Your task to perform on an android device: delete the emails in spam in the gmail app Image 0: 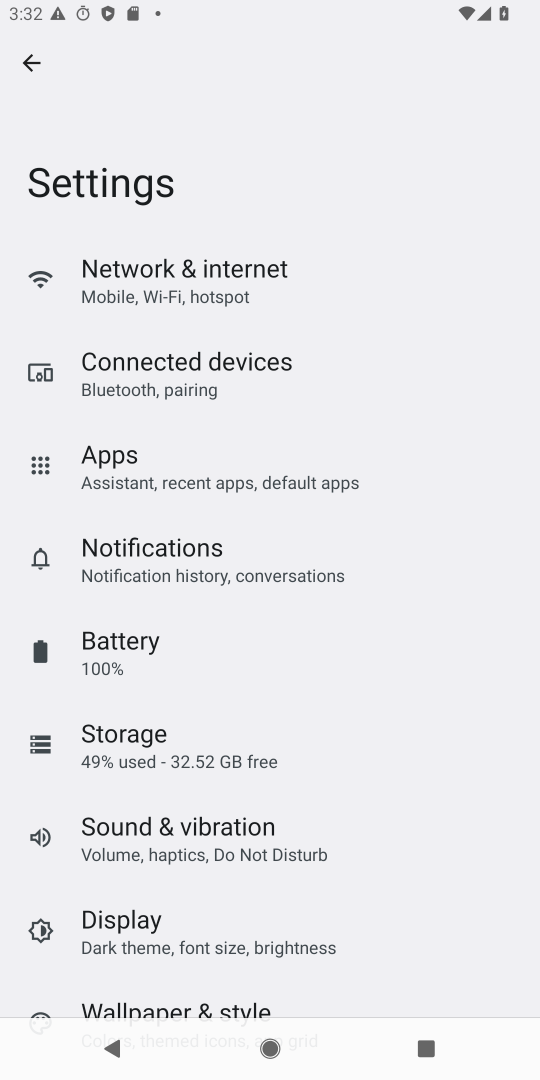
Step 0: press home button
Your task to perform on an android device: delete the emails in spam in the gmail app Image 1: 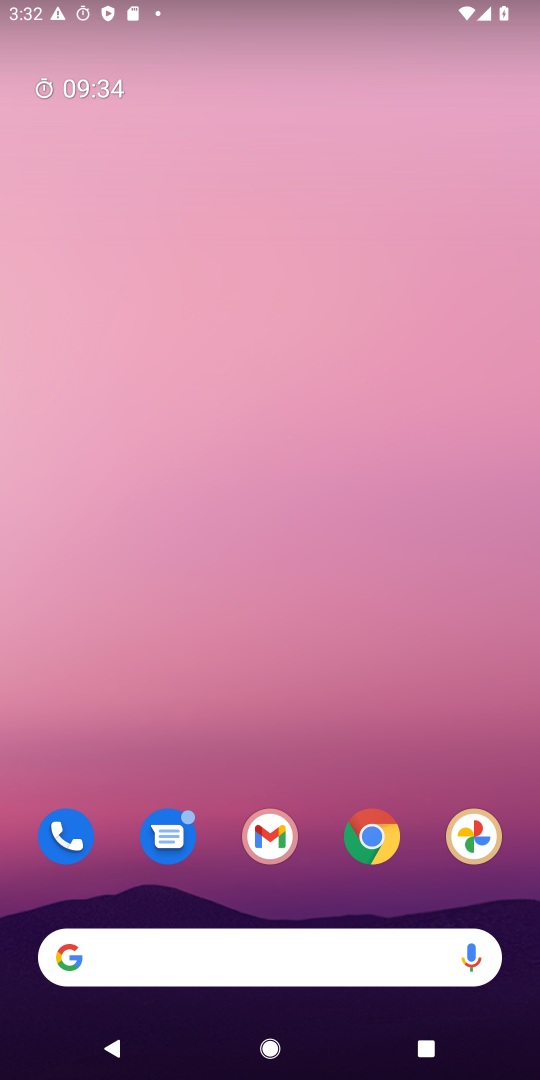
Step 1: click (296, 848)
Your task to perform on an android device: delete the emails in spam in the gmail app Image 2: 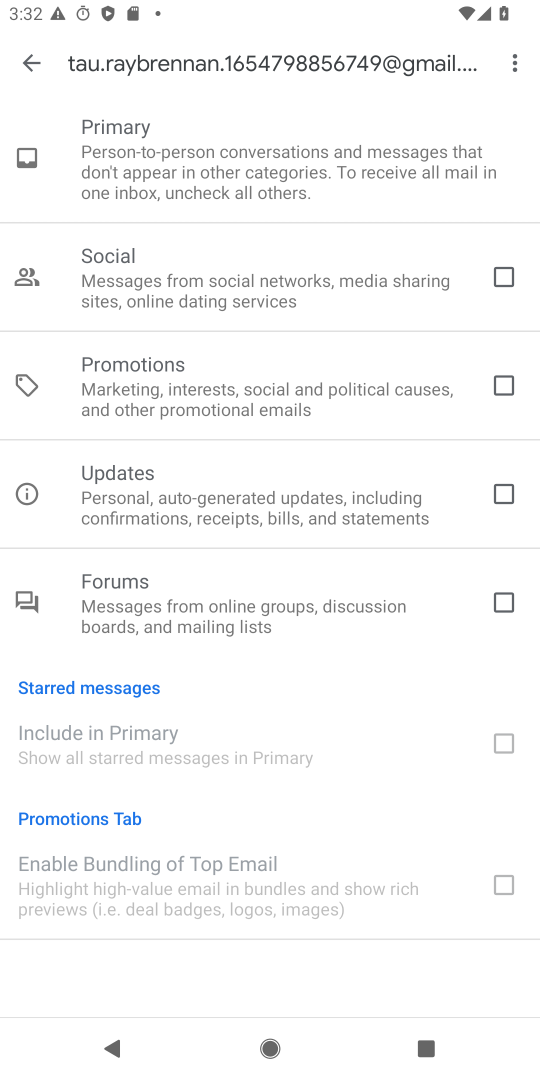
Step 2: click (39, 54)
Your task to perform on an android device: delete the emails in spam in the gmail app Image 3: 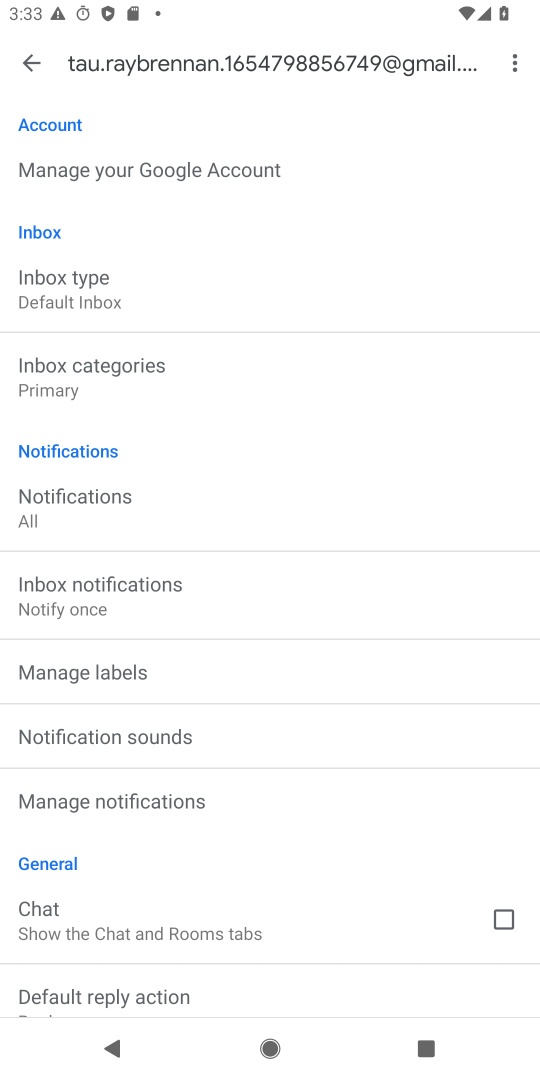
Step 3: click (51, 79)
Your task to perform on an android device: delete the emails in spam in the gmail app Image 4: 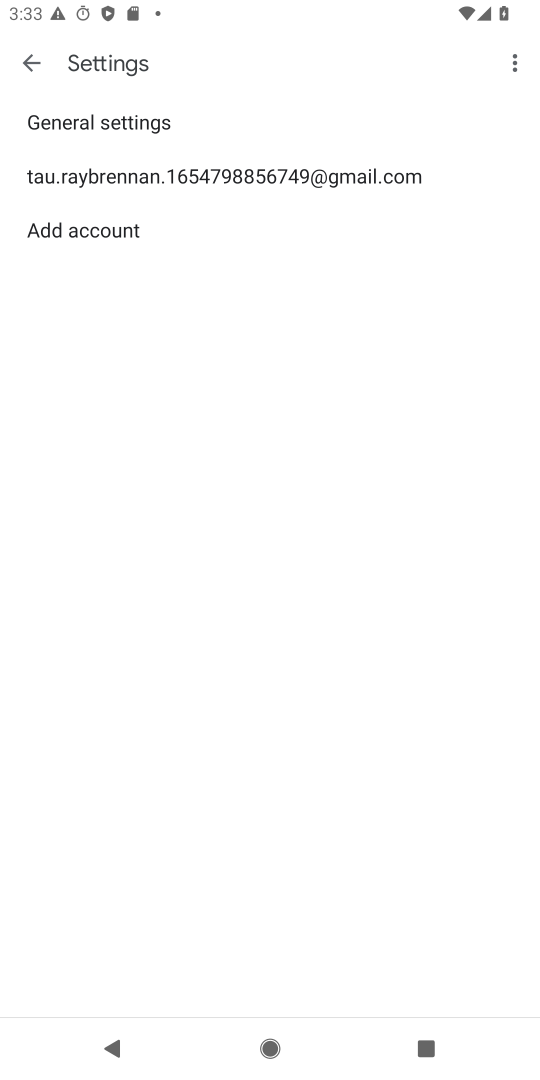
Step 4: click (32, 58)
Your task to perform on an android device: delete the emails in spam in the gmail app Image 5: 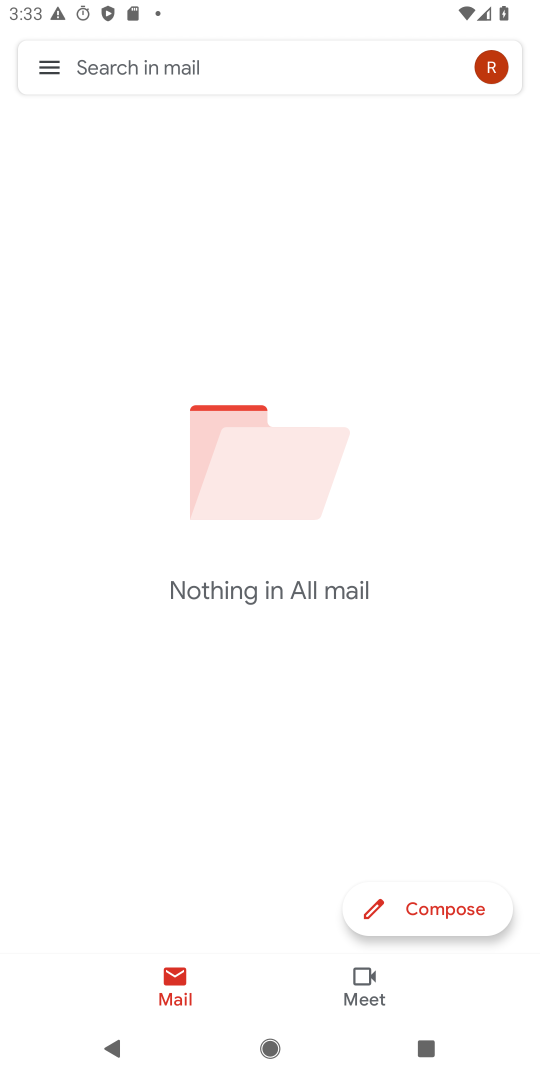
Step 5: click (38, 61)
Your task to perform on an android device: delete the emails in spam in the gmail app Image 6: 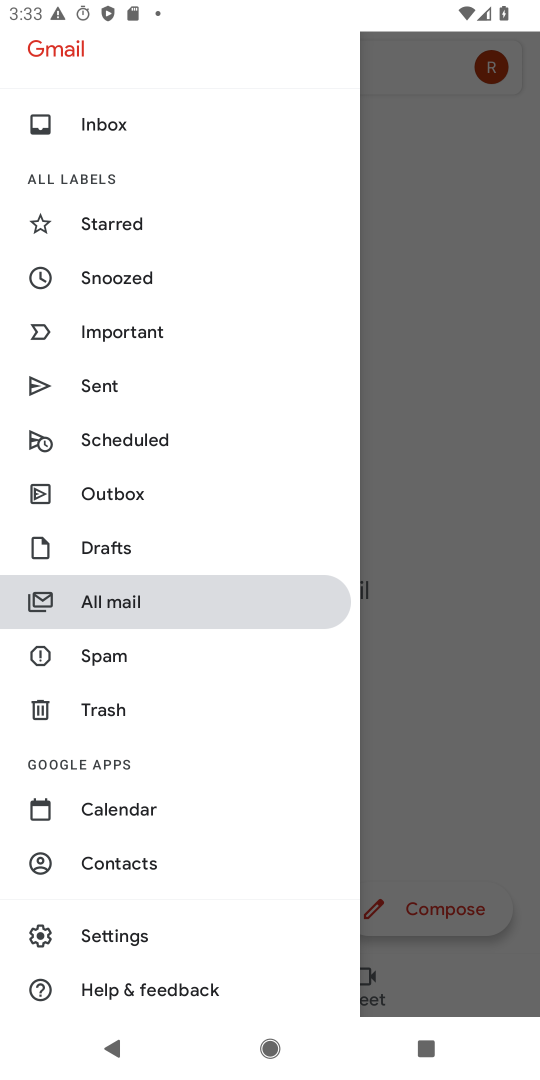
Step 6: click (118, 647)
Your task to perform on an android device: delete the emails in spam in the gmail app Image 7: 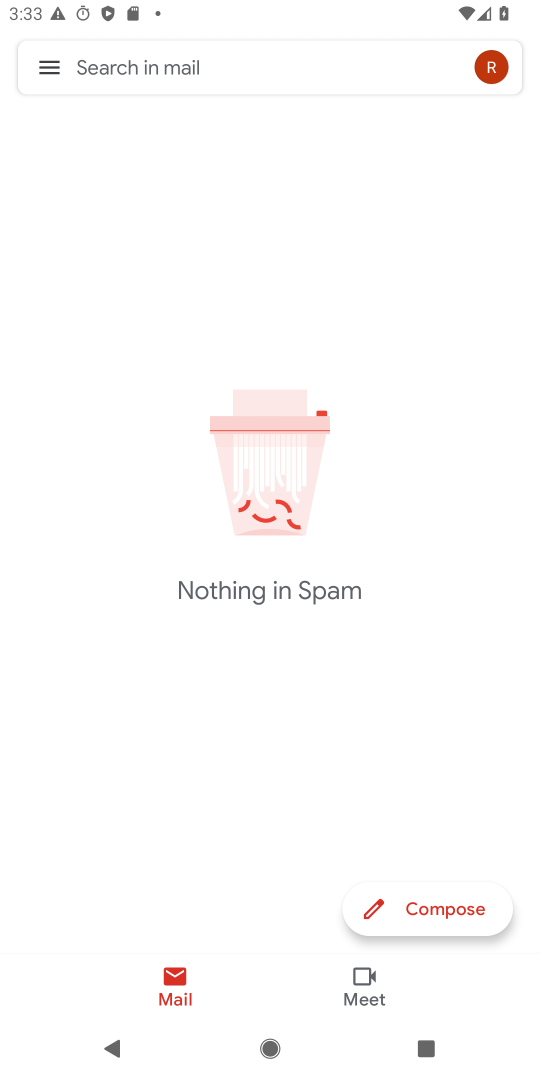
Step 7: task complete